Your task to perform on an android device: toggle priority inbox in the gmail app Image 0: 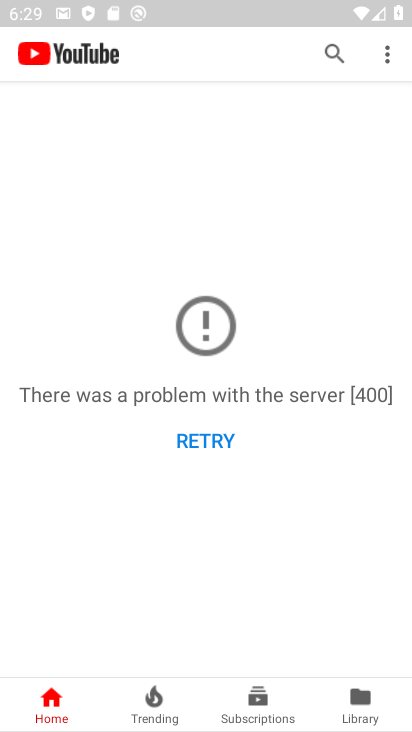
Step 0: press home button
Your task to perform on an android device: toggle priority inbox in the gmail app Image 1: 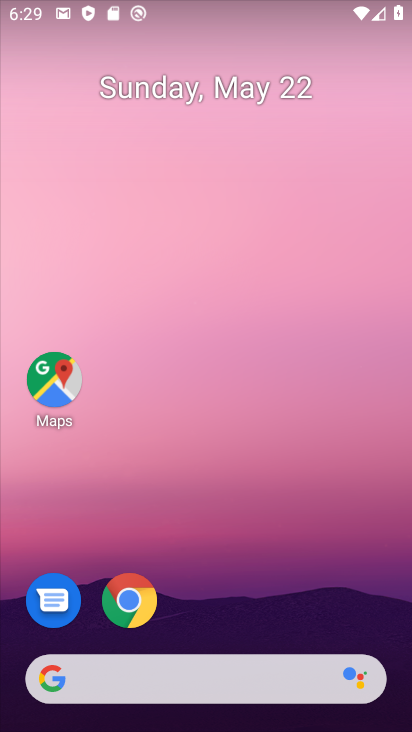
Step 1: drag from (384, 630) to (305, 118)
Your task to perform on an android device: toggle priority inbox in the gmail app Image 2: 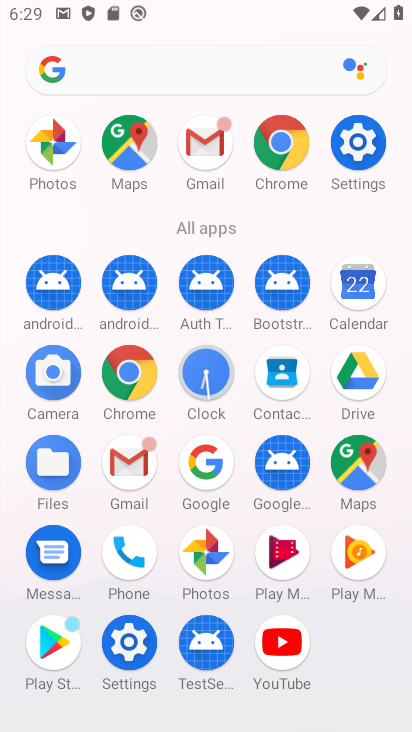
Step 2: click (140, 468)
Your task to perform on an android device: toggle priority inbox in the gmail app Image 3: 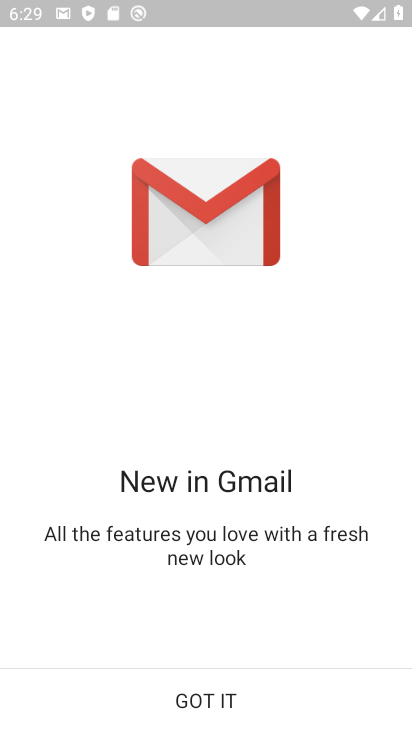
Step 3: click (171, 706)
Your task to perform on an android device: toggle priority inbox in the gmail app Image 4: 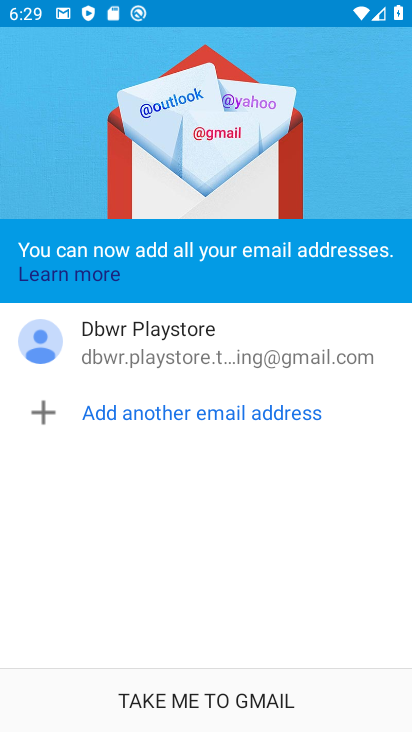
Step 4: click (171, 706)
Your task to perform on an android device: toggle priority inbox in the gmail app Image 5: 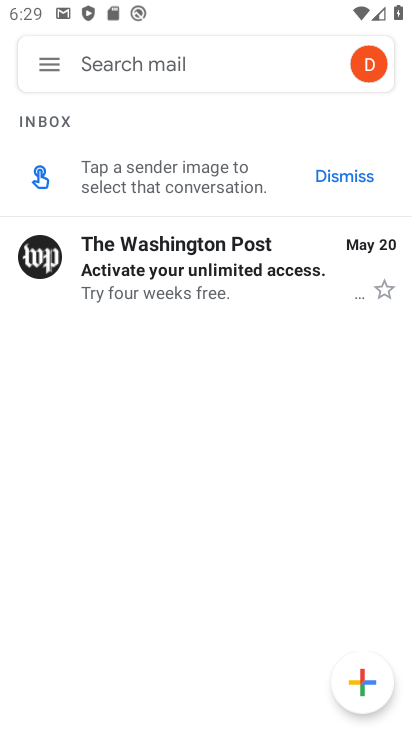
Step 5: click (35, 63)
Your task to perform on an android device: toggle priority inbox in the gmail app Image 6: 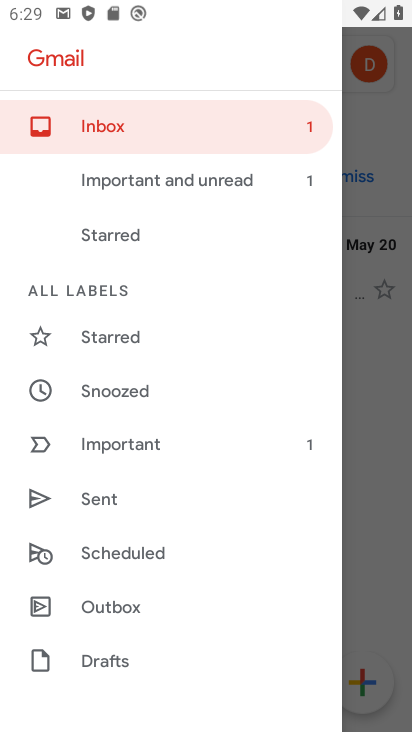
Step 6: drag from (159, 529) to (176, 118)
Your task to perform on an android device: toggle priority inbox in the gmail app Image 7: 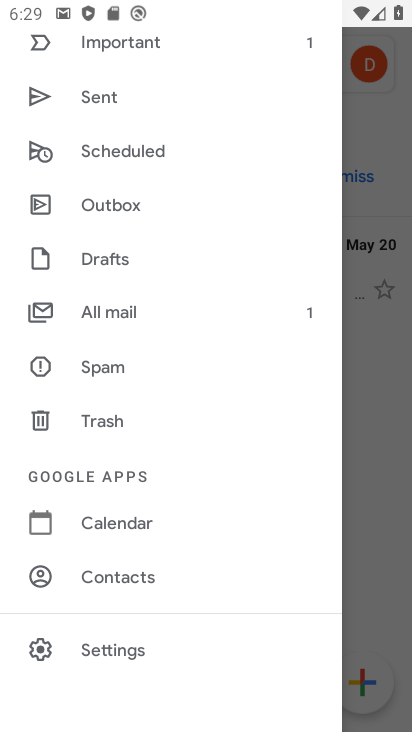
Step 7: click (181, 643)
Your task to perform on an android device: toggle priority inbox in the gmail app Image 8: 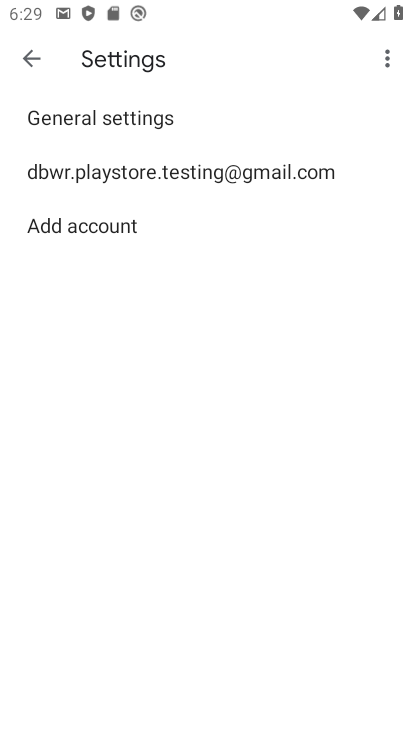
Step 8: click (183, 185)
Your task to perform on an android device: toggle priority inbox in the gmail app Image 9: 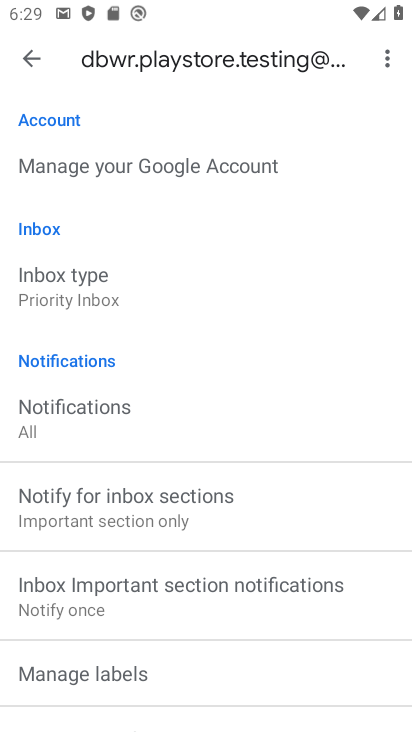
Step 9: click (125, 298)
Your task to perform on an android device: toggle priority inbox in the gmail app Image 10: 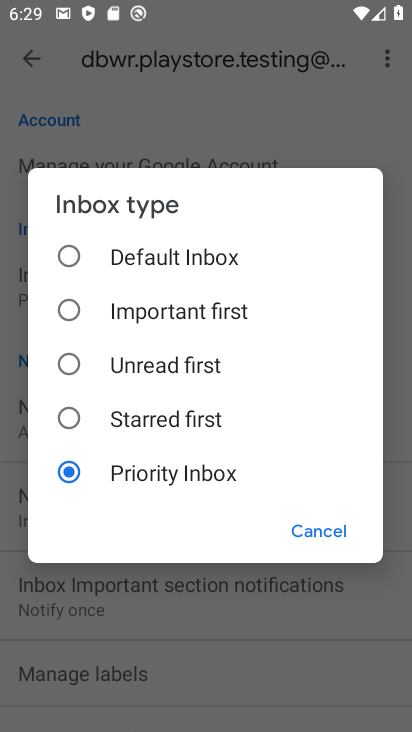
Step 10: click (154, 257)
Your task to perform on an android device: toggle priority inbox in the gmail app Image 11: 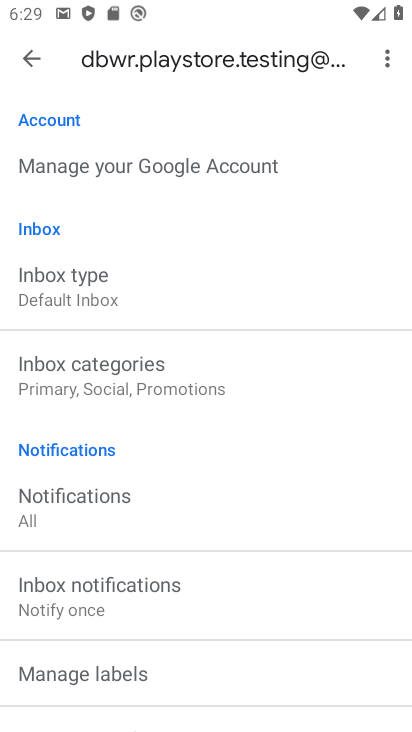
Step 11: task complete